Your task to perform on an android device: turn notification dots off Image 0: 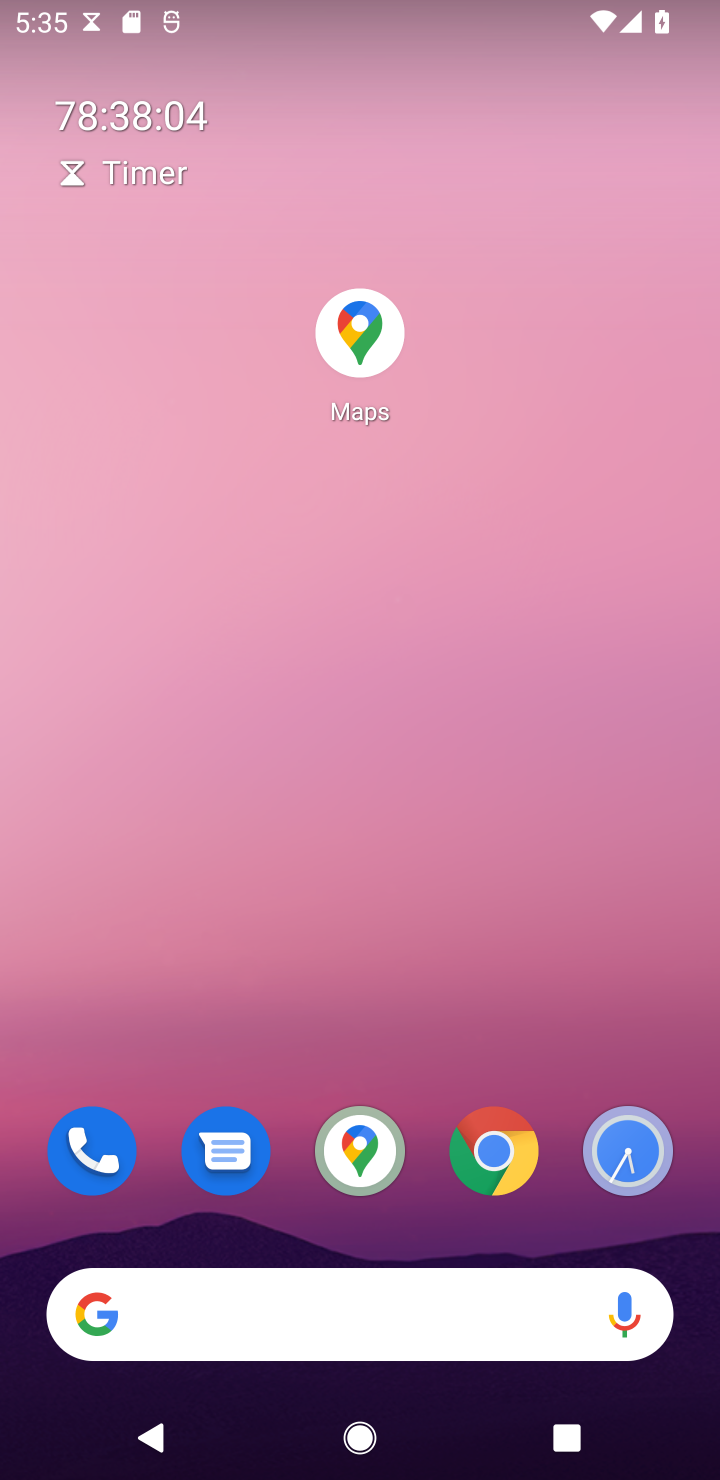
Step 0: drag from (205, 1161) to (217, 342)
Your task to perform on an android device: turn notification dots off Image 1: 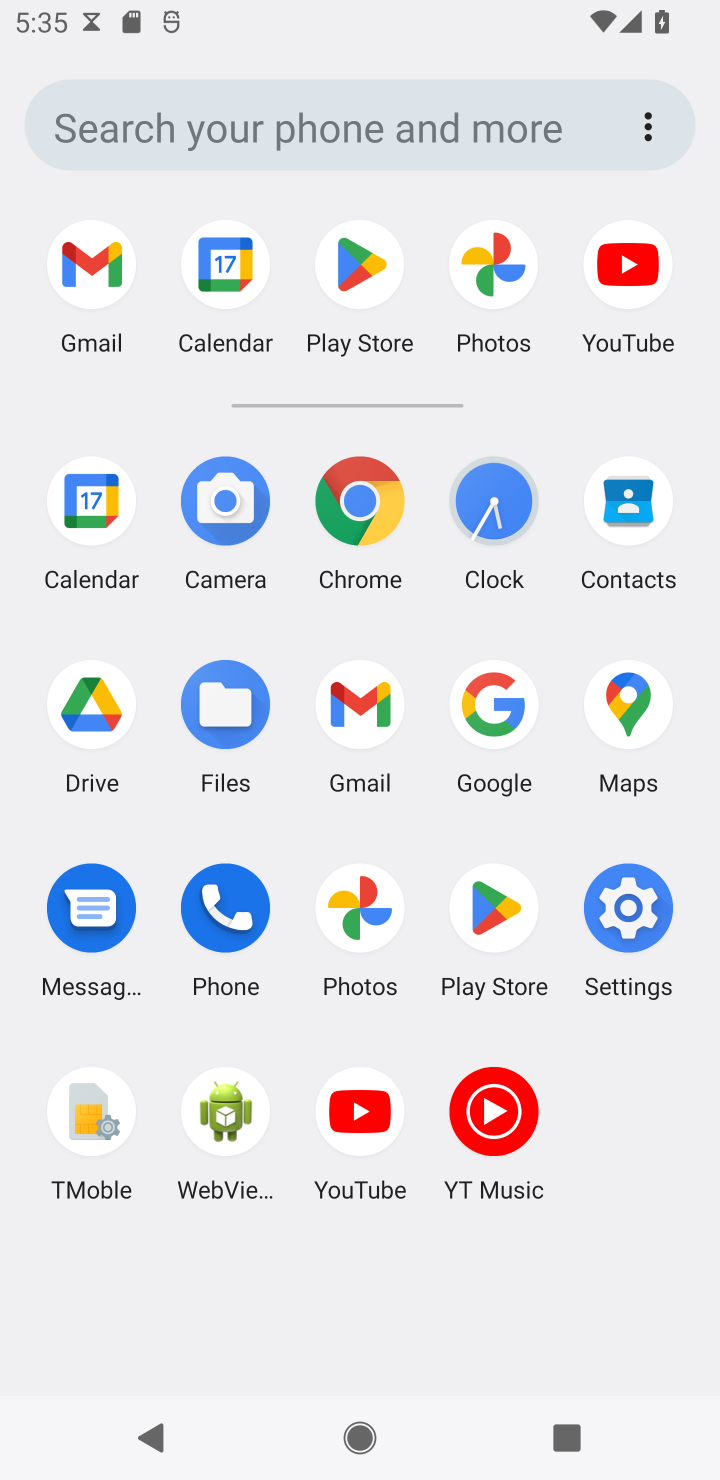
Step 1: click (642, 899)
Your task to perform on an android device: turn notification dots off Image 2: 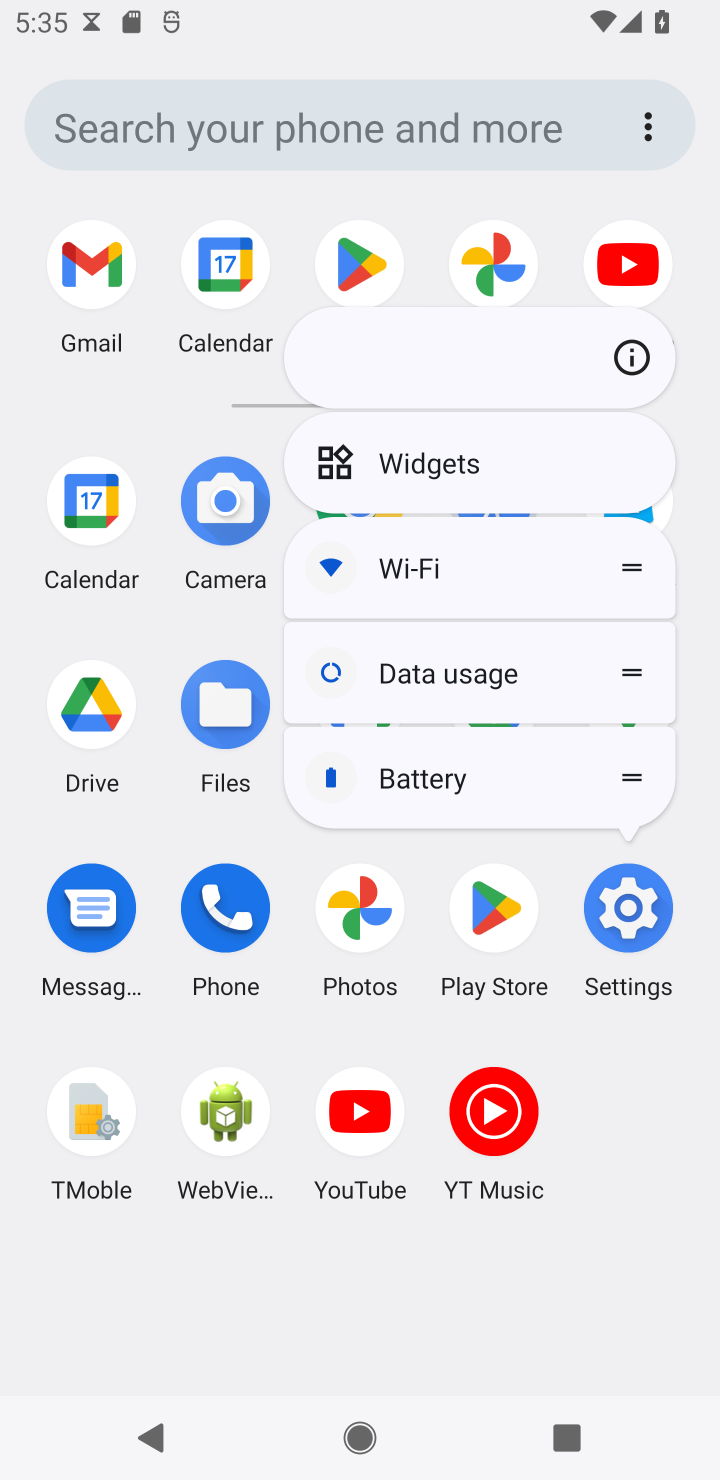
Step 2: click (642, 899)
Your task to perform on an android device: turn notification dots off Image 3: 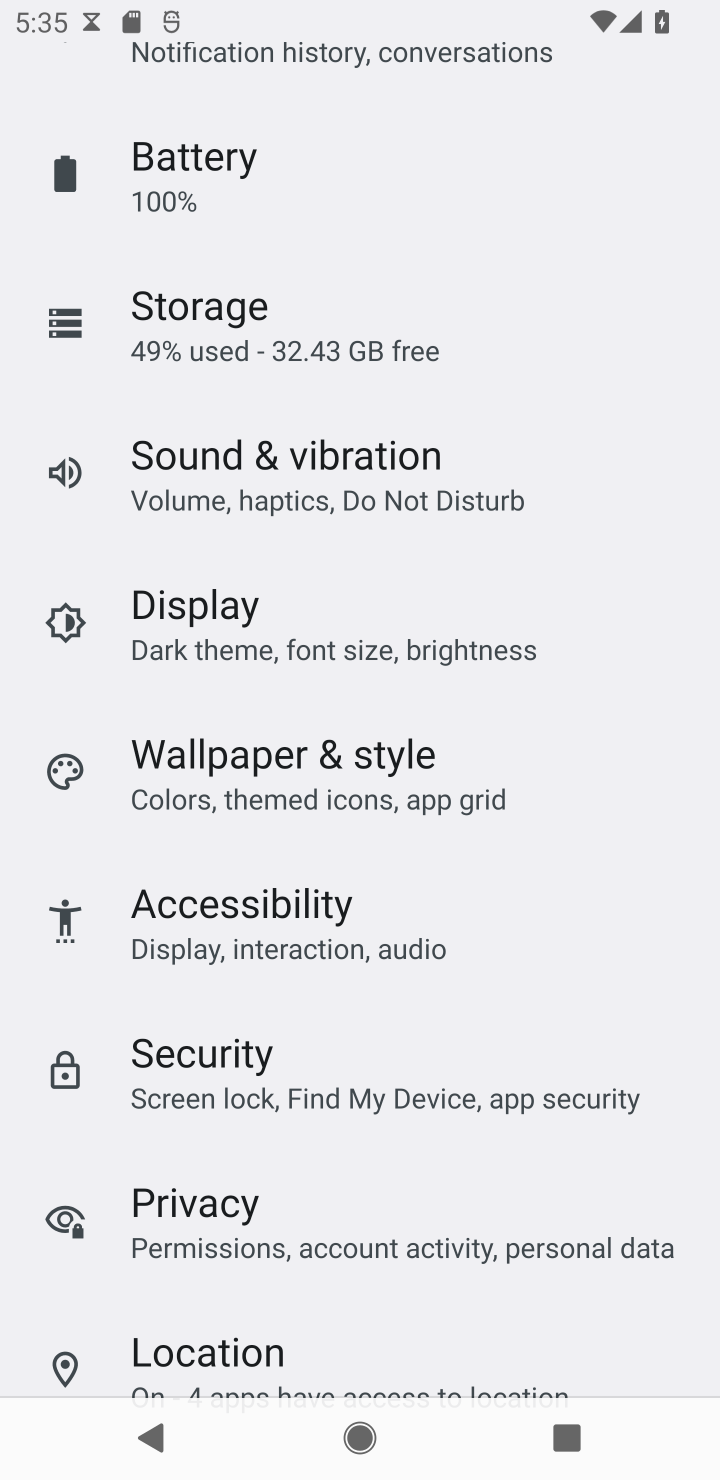
Step 3: drag from (168, 196) to (148, 1062)
Your task to perform on an android device: turn notification dots off Image 4: 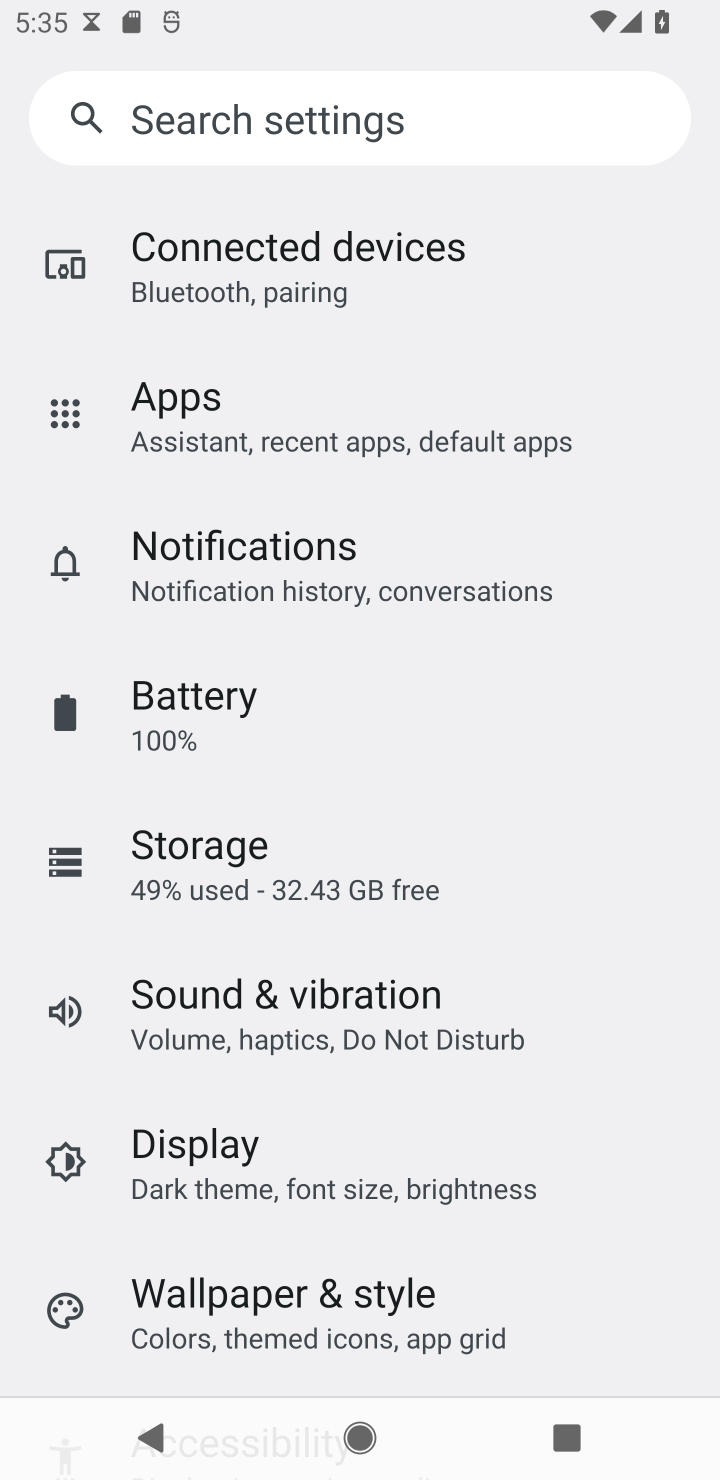
Step 4: click (316, 87)
Your task to perform on an android device: turn notification dots off Image 5: 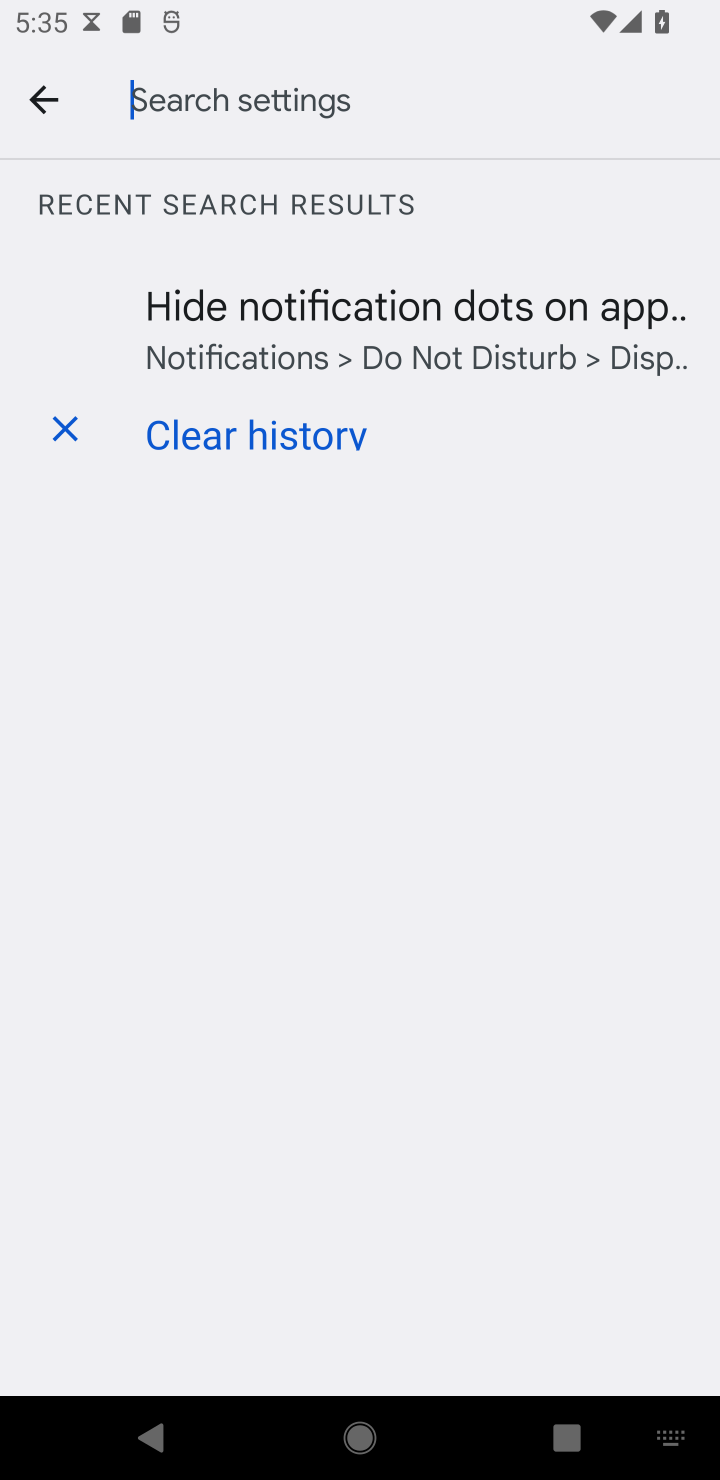
Step 5: click (375, 317)
Your task to perform on an android device: turn notification dots off Image 6: 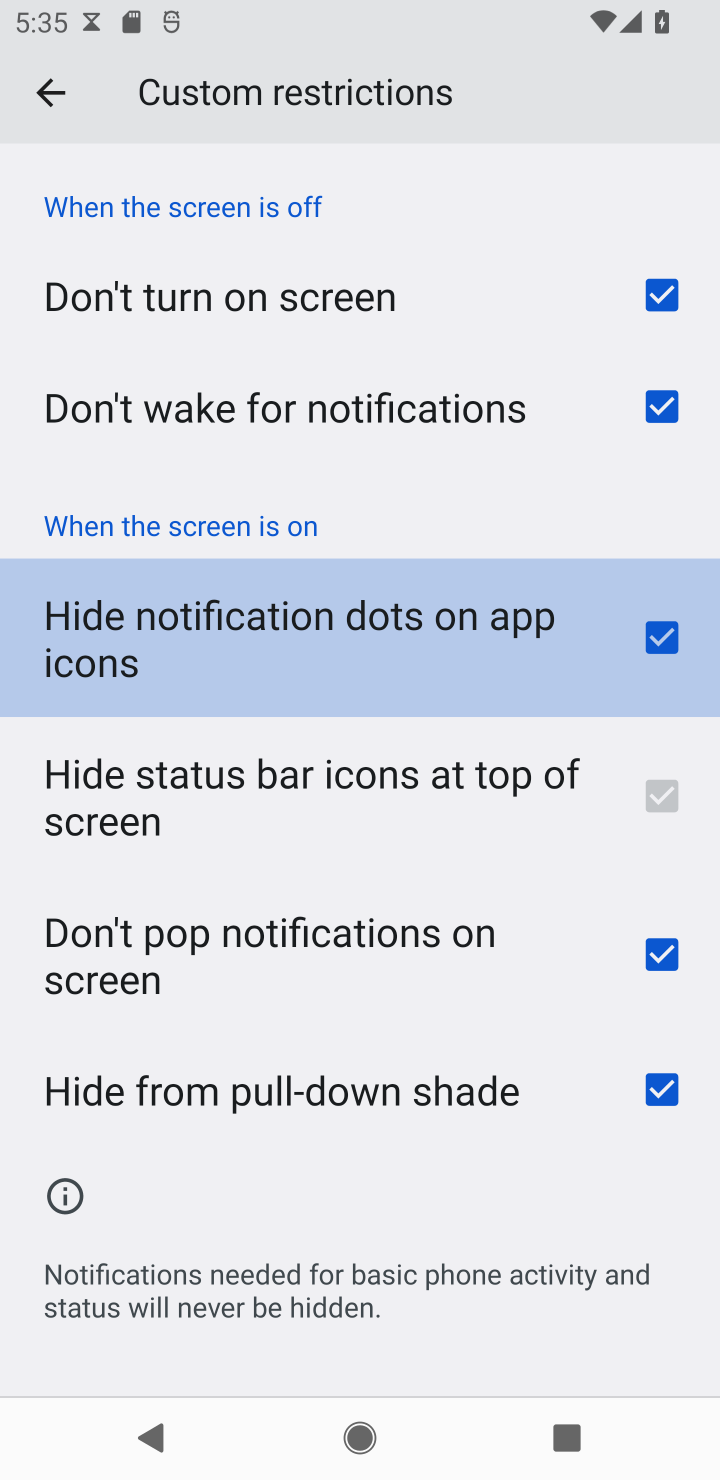
Step 6: click (639, 631)
Your task to perform on an android device: turn notification dots off Image 7: 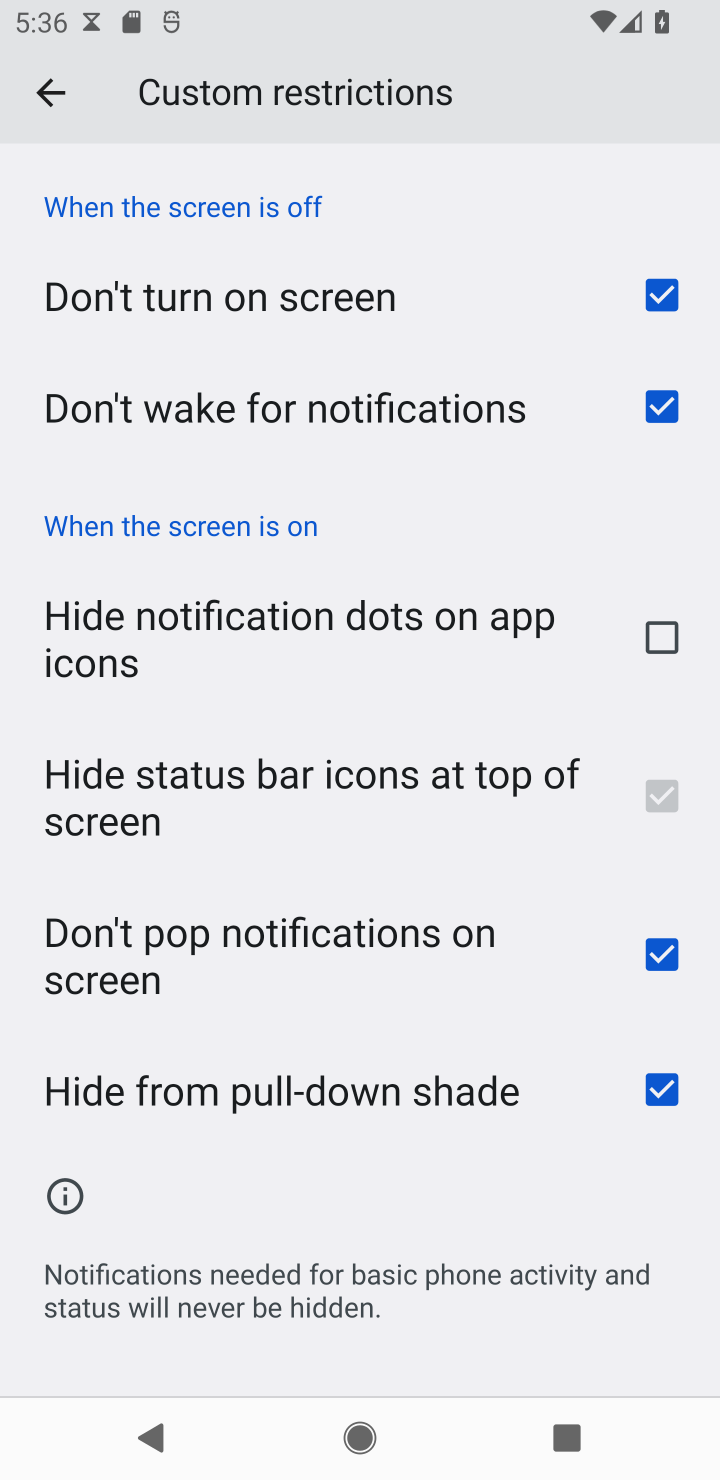
Step 7: task complete